Your task to perform on an android device: turn on the 12-hour format for clock Image 0: 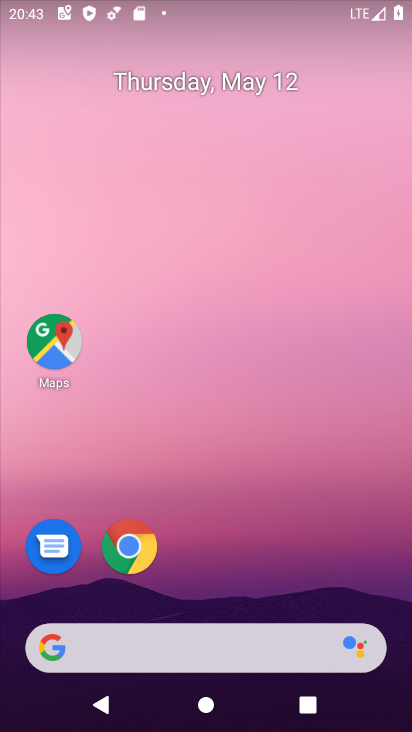
Step 0: drag from (205, 597) to (341, 8)
Your task to perform on an android device: turn on the 12-hour format for clock Image 1: 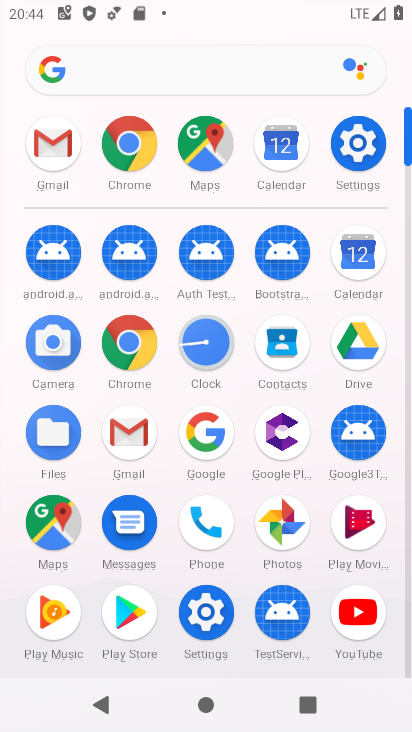
Step 1: click (202, 340)
Your task to perform on an android device: turn on the 12-hour format for clock Image 2: 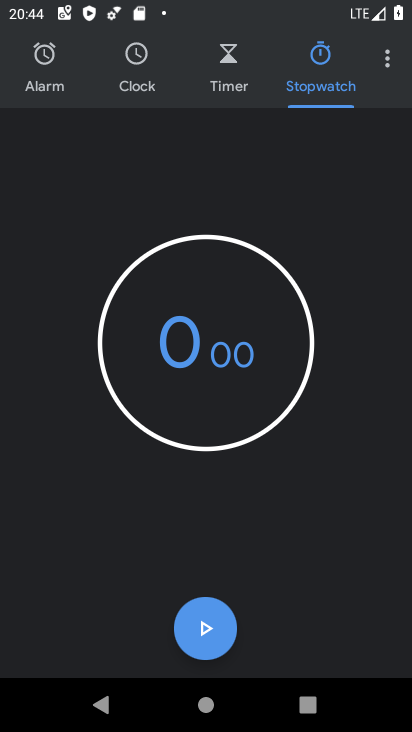
Step 2: click (158, 74)
Your task to perform on an android device: turn on the 12-hour format for clock Image 3: 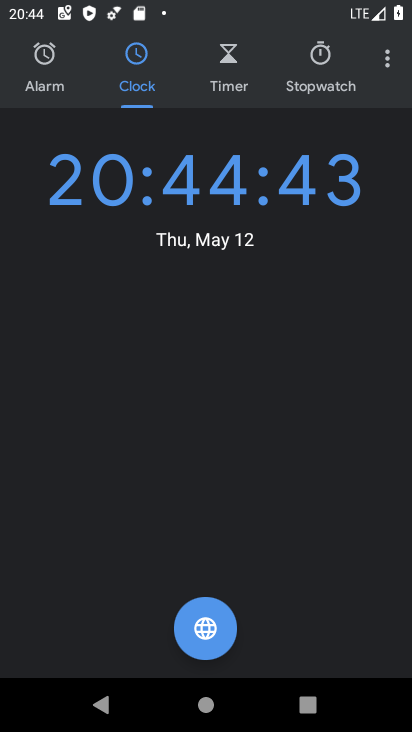
Step 3: click (381, 62)
Your task to perform on an android device: turn on the 12-hour format for clock Image 4: 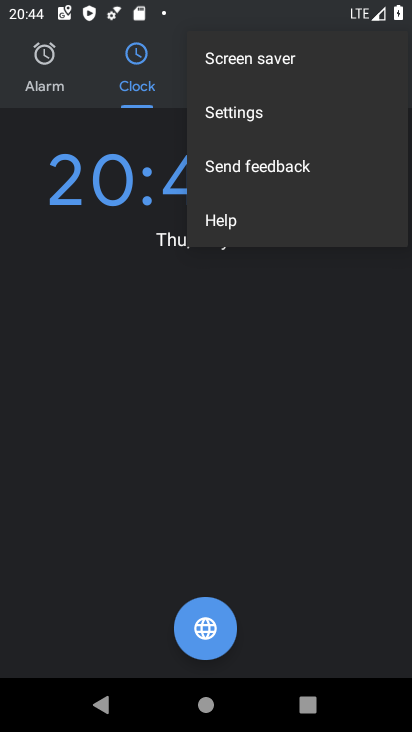
Step 4: click (247, 107)
Your task to perform on an android device: turn on the 12-hour format for clock Image 5: 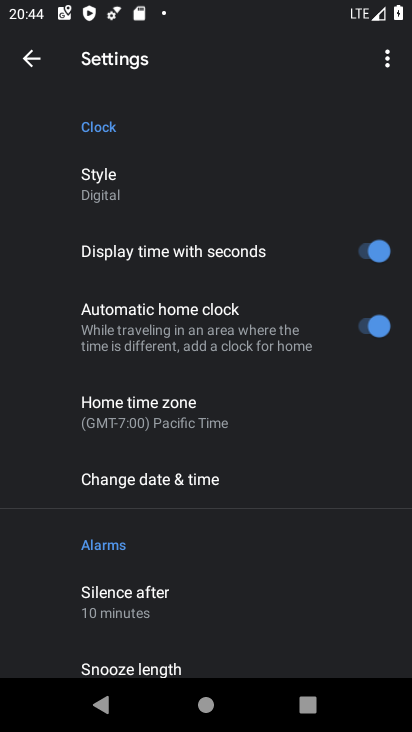
Step 5: click (161, 487)
Your task to perform on an android device: turn on the 12-hour format for clock Image 6: 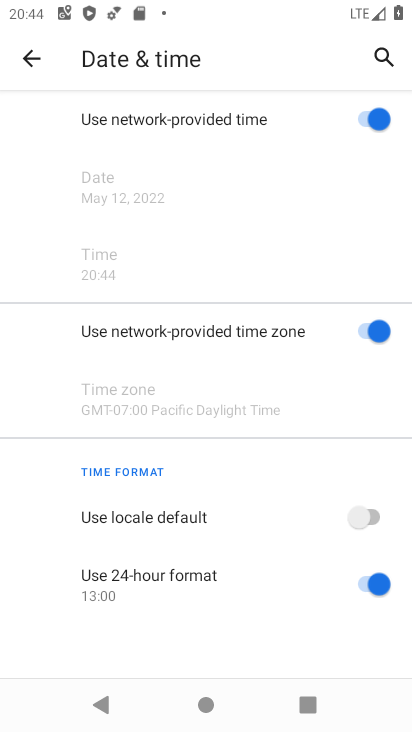
Step 6: click (366, 516)
Your task to perform on an android device: turn on the 12-hour format for clock Image 7: 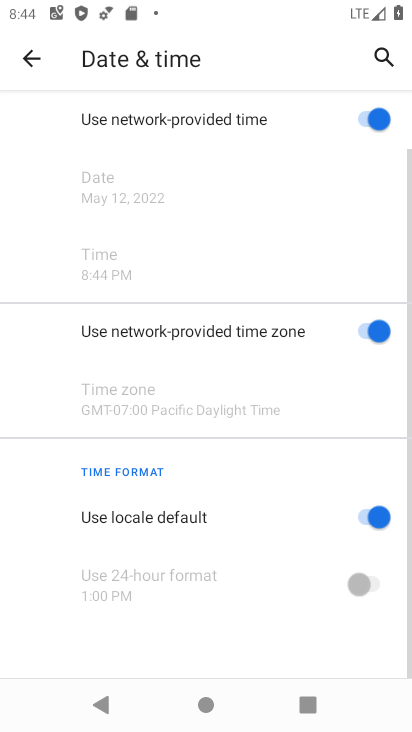
Step 7: task complete